Your task to perform on an android device: change your default location settings in chrome Image 0: 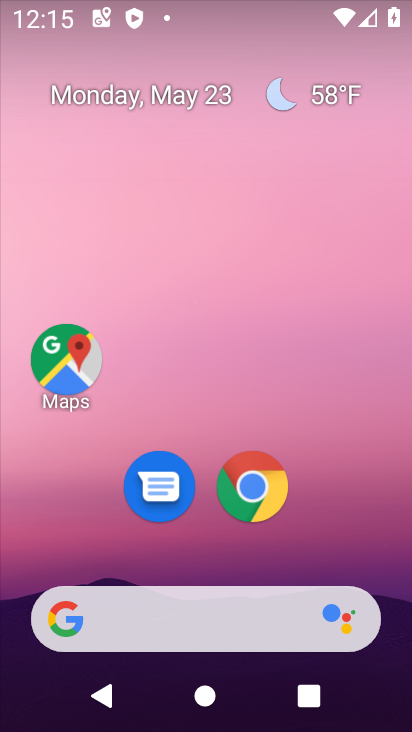
Step 0: click (251, 489)
Your task to perform on an android device: change your default location settings in chrome Image 1: 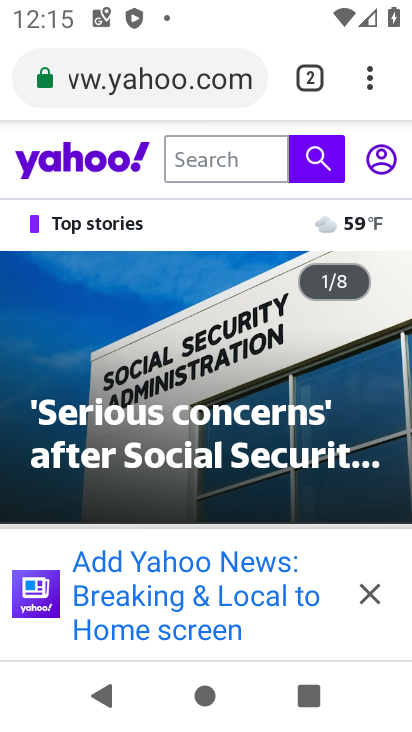
Step 1: click (366, 79)
Your task to perform on an android device: change your default location settings in chrome Image 2: 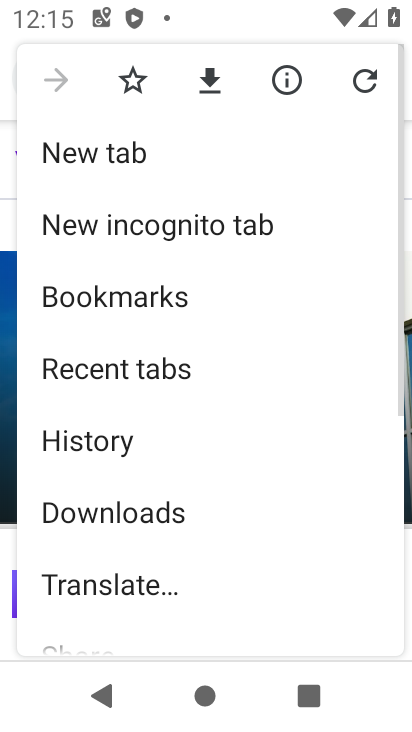
Step 2: drag from (221, 549) to (283, 140)
Your task to perform on an android device: change your default location settings in chrome Image 3: 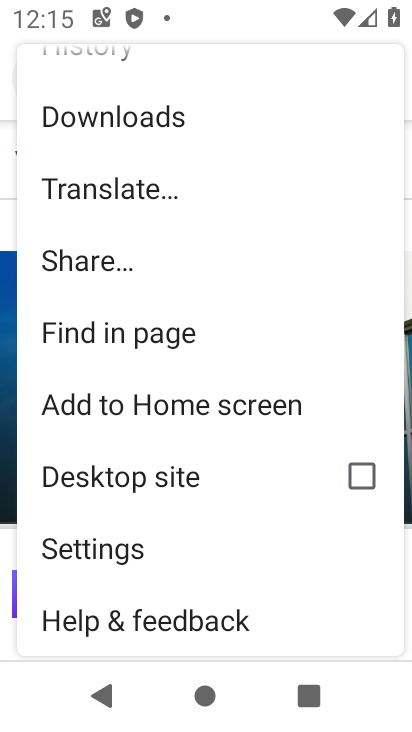
Step 3: click (102, 548)
Your task to perform on an android device: change your default location settings in chrome Image 4: 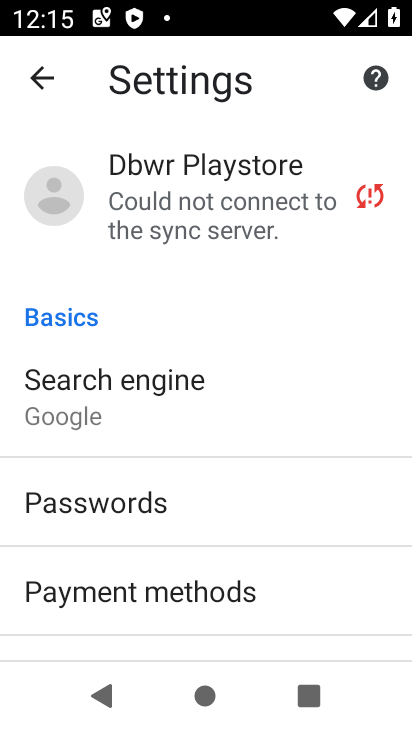
Step 4: drag from (281, 612) to (276, 148)
Your task to perform on an android device: change your default location settings in chrome Image 5: 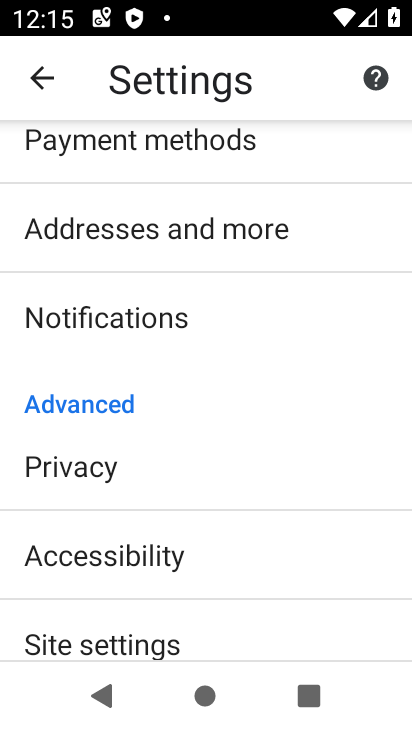
Step 5: drag from (238, 536) to (289, 170)
Your task to perform on an android device: change your default location settings in chrome Image 6: 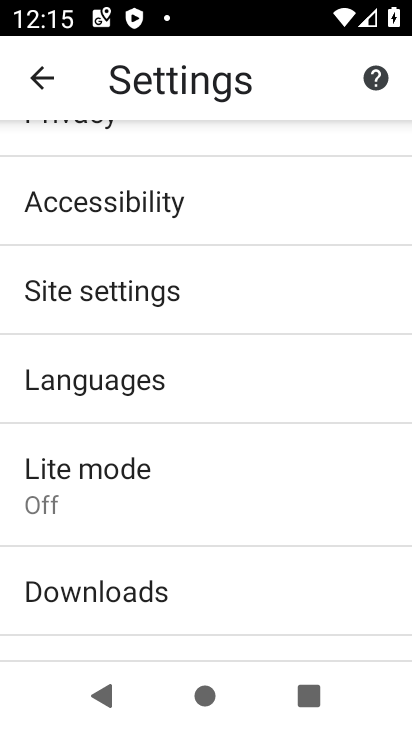
Step 6: click (106, 283)
Your task to perform on an android device: change your default location settings in chrome Image 7: 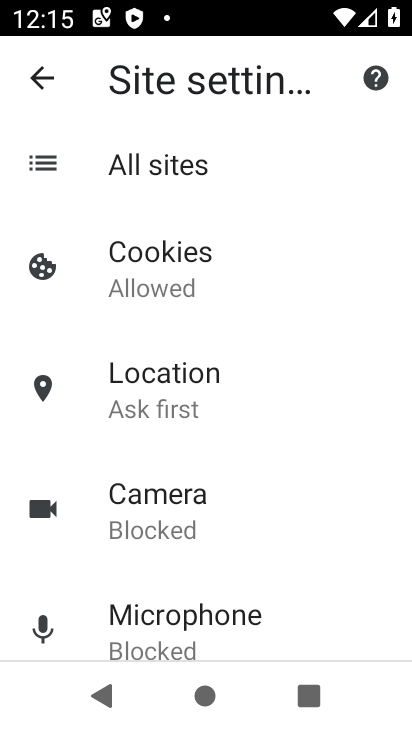
Step 7: click (150, 373)
Your task to perform on an android device: change your default location settings in chrome Image 8: 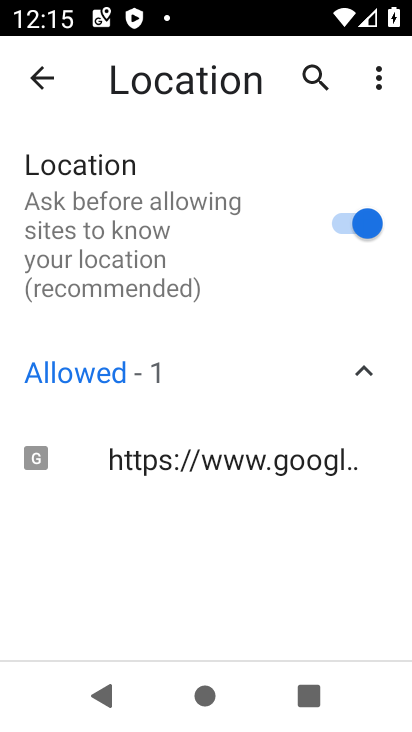
Step 8: click (337, 230)
Your task to perform on an android device: change your default location settings in chrome Image 9: 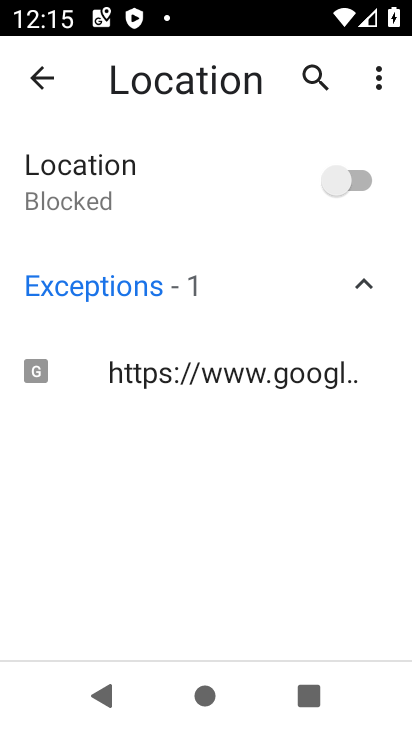
Step 9: task complete